Your task to perform on an android device: open the mobile data screen to see how much data has been used Image 0: 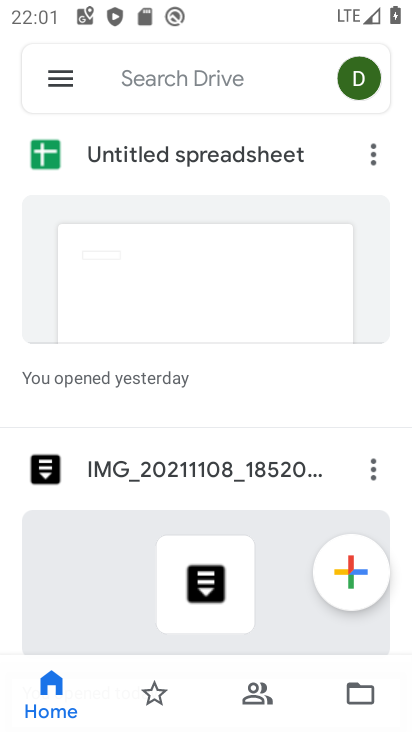
Step 0: press home button
Your task to perform on an android device: open the mobile data screen to see how much data has been used Image 1: 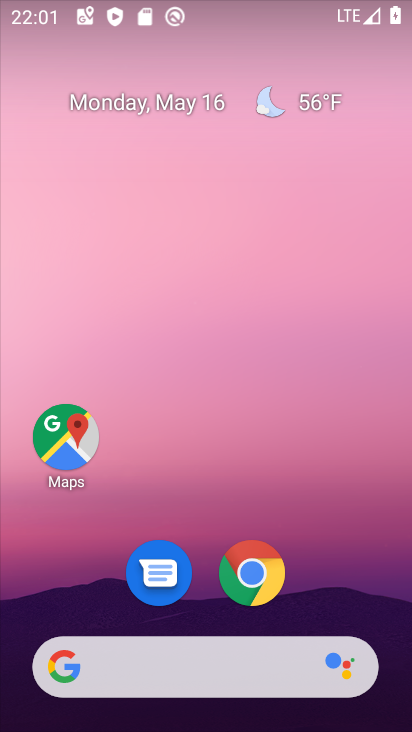
Step 1: drag from (220, 725) to (218, 69)
Your task to perform on an android device: open the mobile data screen to see how much data has been used Image 2: 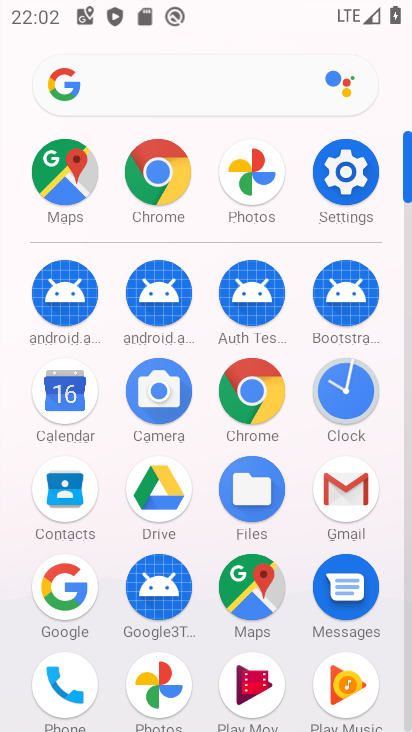
Step 2: click (347, 170)
Your task to perform on an android device: open the mobile data screen to see how much data has been used Image 3: 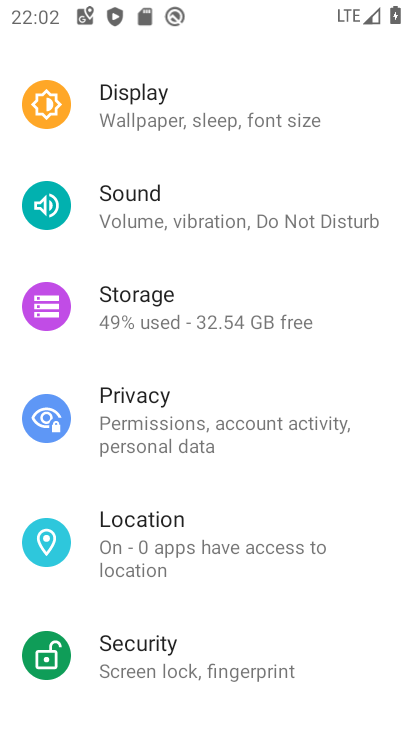
Step 3: drag from (253, 157) to (242, 602)
Your task to perform on an android device: open the mobile data screen to see how much data has been used Image 4: 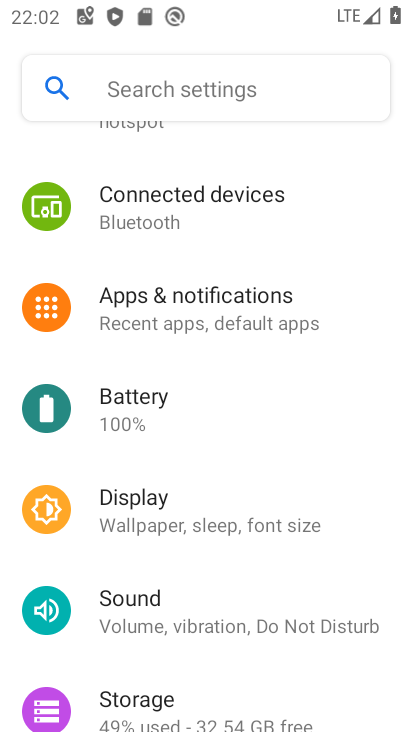
Step 4: drag from (238, 172) to (231, 637)
Your task to perform on an android device: open the mobile data screen to see how much data has been used Image 5: 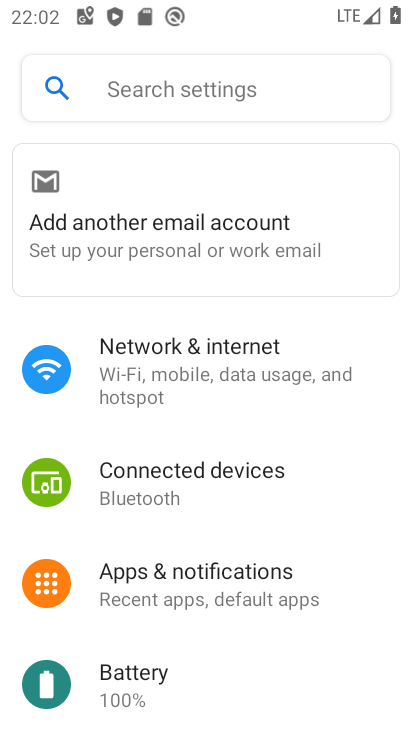
Step 5: click (160, 369)
Your task to perform on an android device: open the mobile data screen to see how much data has been used Image 6: 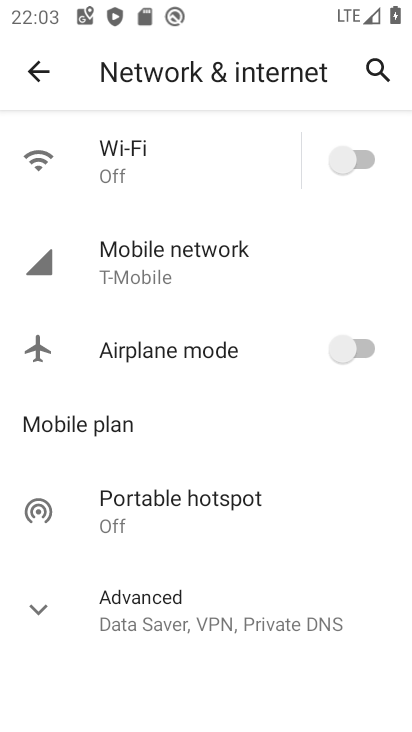
Step 6: click (139, 267)
Your task to perform on an android device: open the mobile data screen to see how much data has been used Image 7: 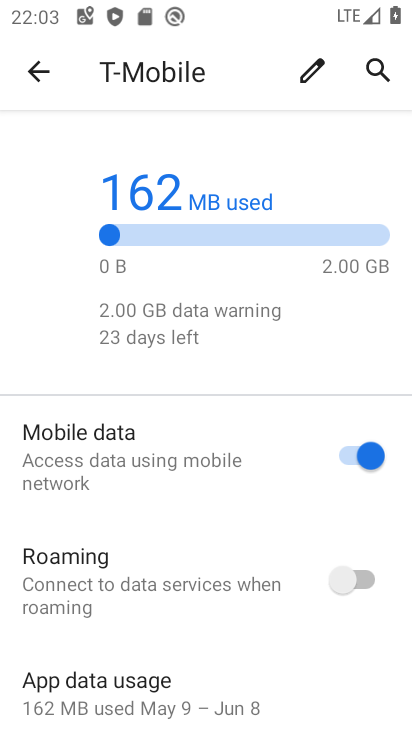
Step 7: click (97, 684)
Your task to perform on an android device: open the mobile data screen to see how much data has been used Image 8: 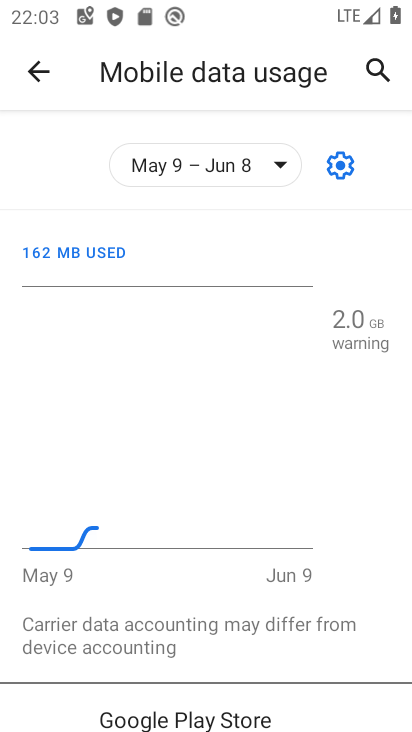
Step 8: task complete